Your task to perform on an android device: turn off sleep mode Image 0: 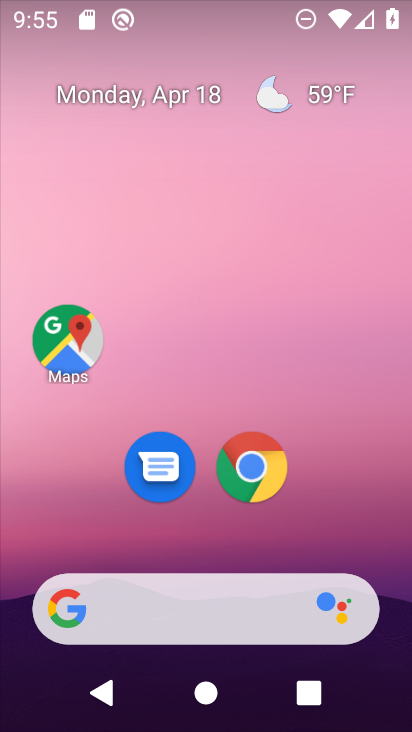
Step 0: drag from (211, 336) to (218, 3)
Your task to perform on an android device: turn off sleep mode Image 1: 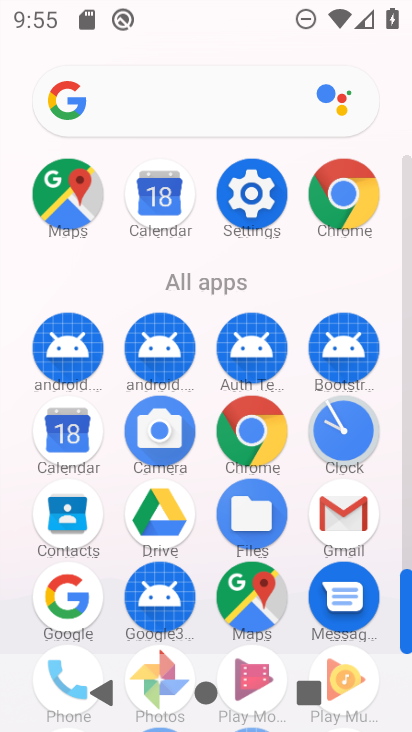
Step 1: click (259, 184)
Your task to perform on an android device: turn off sleep mode Image 2: 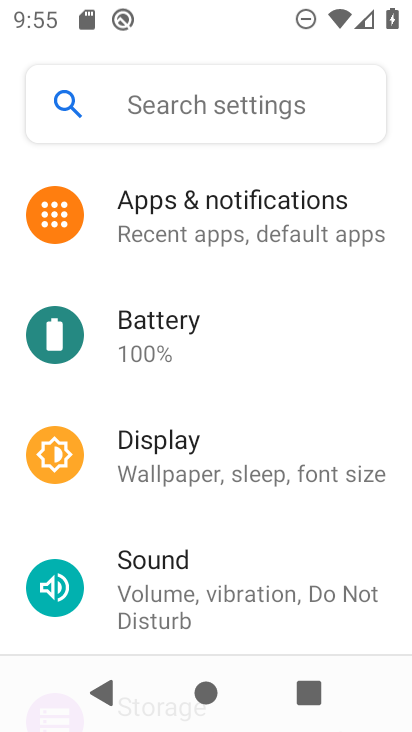
Step 2: click (171, 100)
Your task to perform on an android device: turn off sleep mode Image 3: 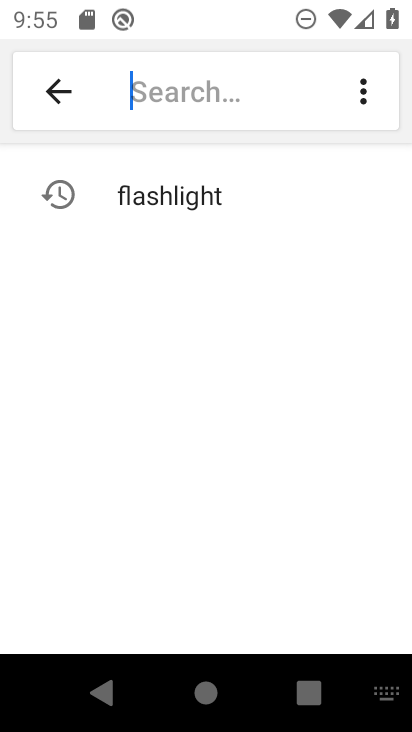
Step 3: type "sleep mode"
Your task to perform on an android device: turn off sleep mode Image 4: 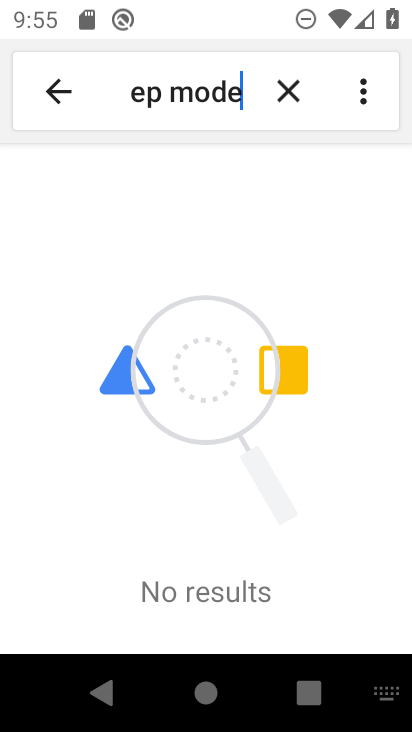
Step 4: task complete